Your task to perform on an android device: Go to Yahoo.com Image 0: 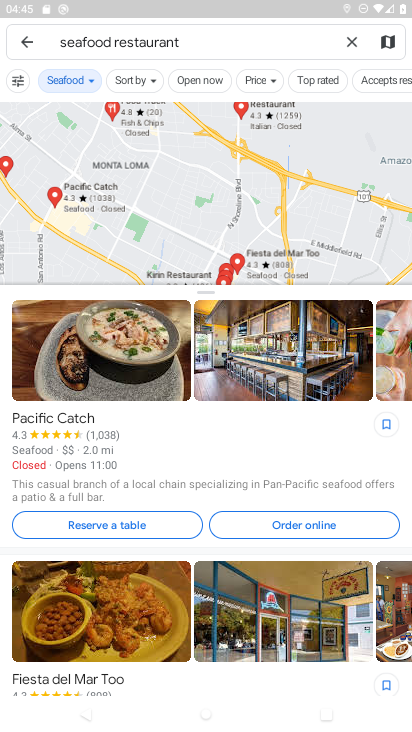
Step 0: press home button
Your task to perform on an android device: Go to Yahoo.com Image 1: 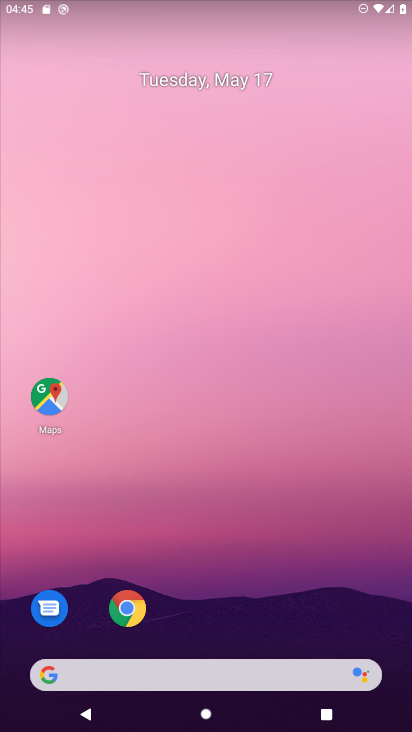
Step 1: click (121, 610)
Your task to perform on an android device: Go to Yahoo.com Image 2: 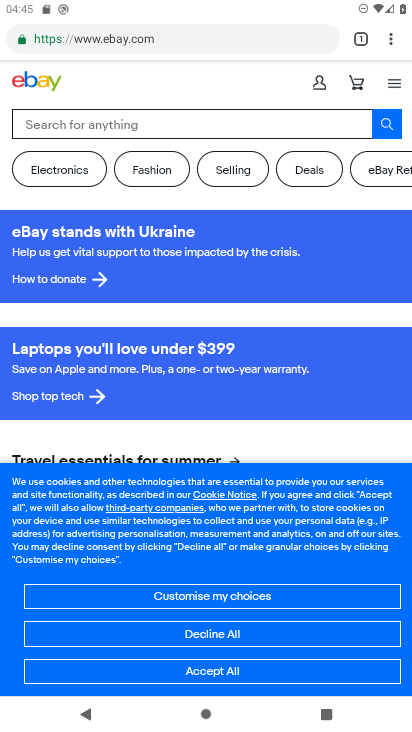
Step 2: click (358, 39)
Your task to perform on an android device: Go to Yahoo.com Image 3: 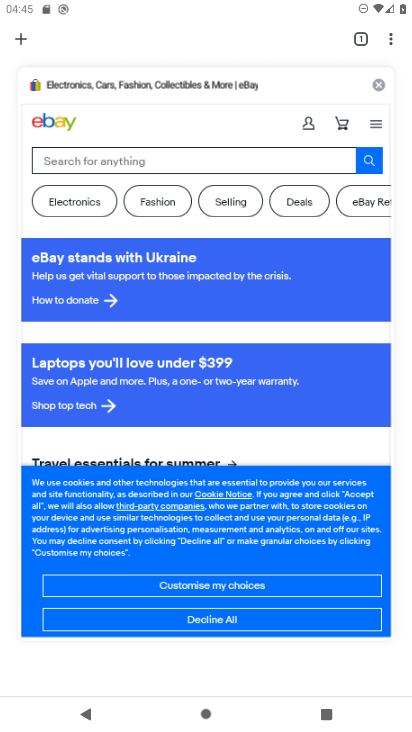
Step 3: click (383, 87)
Your task to perform on an android device: Go to Yahoo.com Image 4: 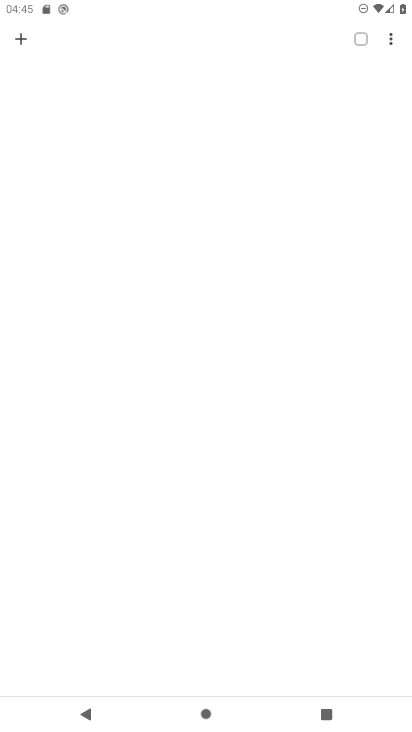
Step 4: click (24, 34)
Your task to perform on an android device: Go to Yahoo.com Image 5: 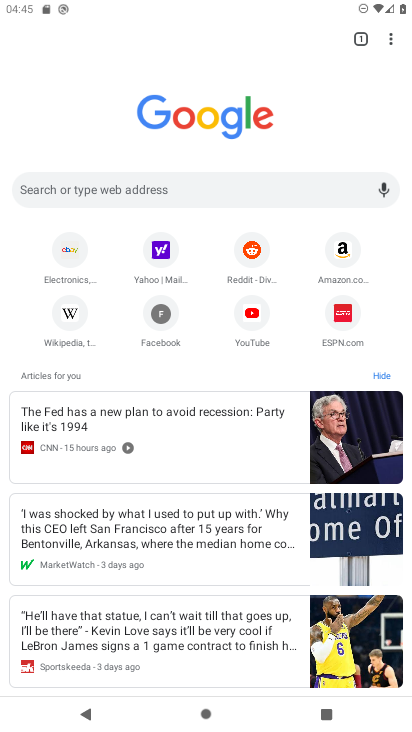
Step 5: click (162, 240)
Your task to perform on an android device: Go to Yahoo.com Image 6: 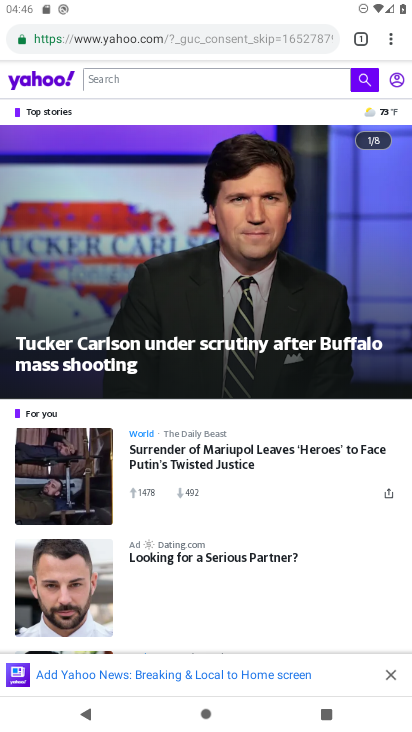
Step 6: click (254, 693)
Your task to perform on an android device: Go to Yahoo.com Image 7: 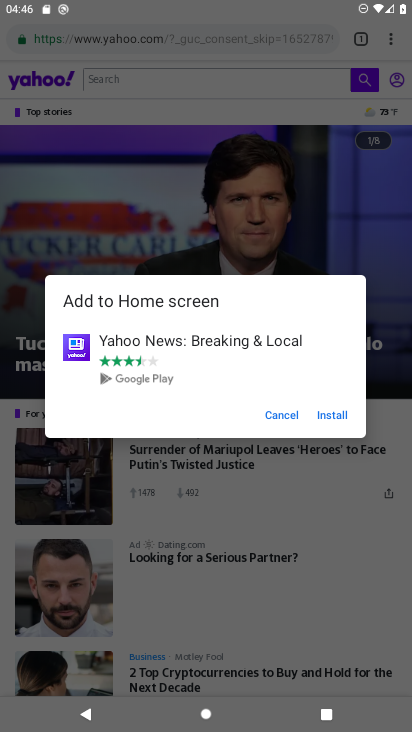
Step 7: click (266, 416)
Your task to perform on an android device: Go to Yahoo.com Image 8: 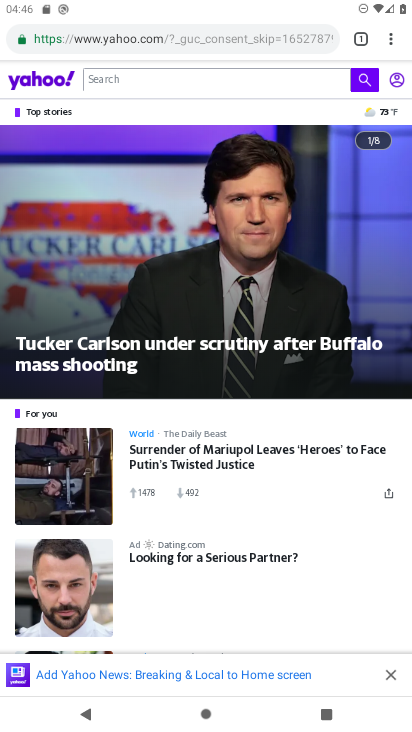
Step 8: task complete